Your task to perform on an android device: open app "Booking.com: Hotels and more" (install if not already installed) and enter user name: "misting@outlook.com" and password: "blandly" Image 0: 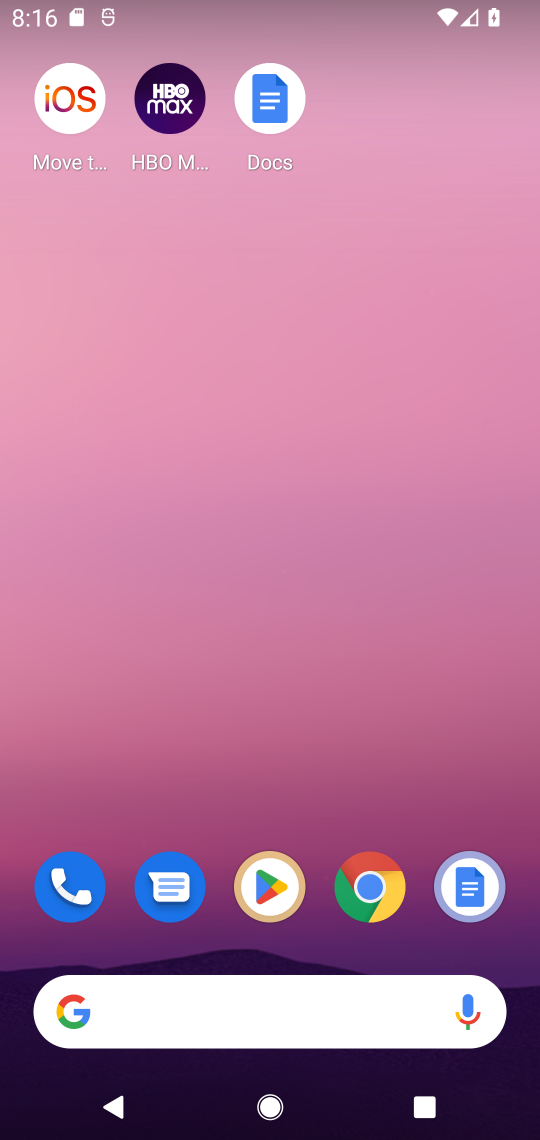
Step 0: click (287, 921)
Your task to perform on an android device: open app "Booking.com: Hotels and more" (install if not already installed) and enter user name: "misting@outlook.com" and password: "blandly" Image 1: 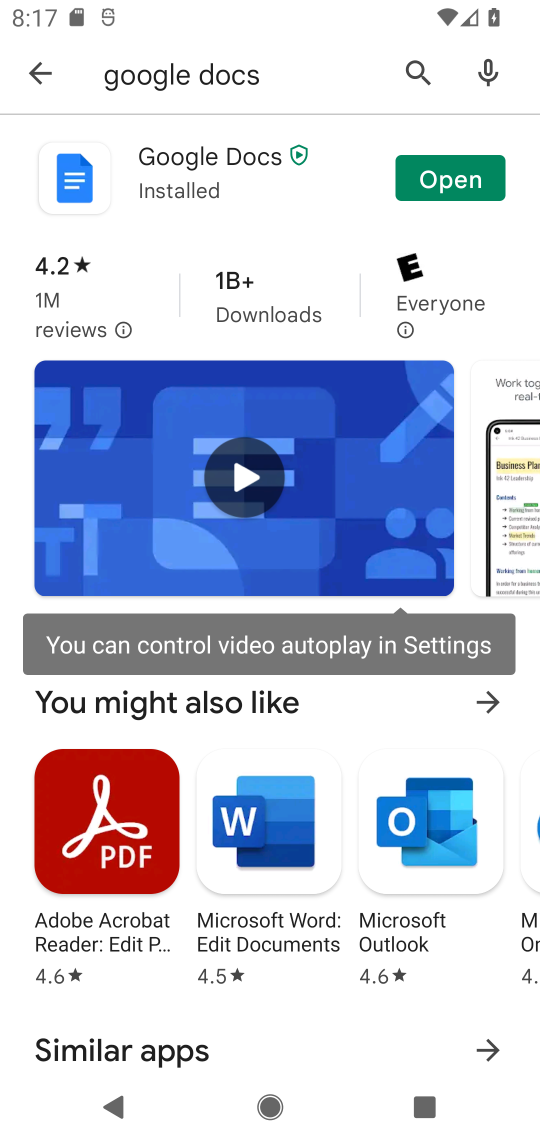
Step 1: click (425, 71)
Your task to perform on an android device: open app "Booking.com: Hotels and more" (install if not already installed) and enter user name: "misting@outlook.com" and password: "blandly" Image 2: 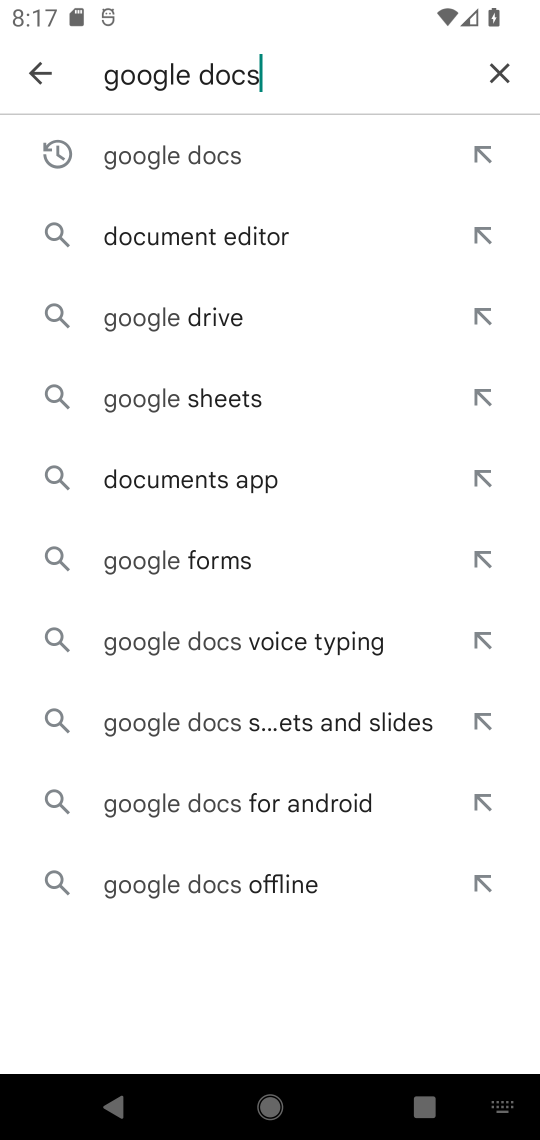
Step 2: click (490, 82)
Your task to perform on an android device: open app "Booking.com: Hotels and more" (install if not already installed) and enter user name: "misting@outlook.com" and password: "blandly" Image 3: 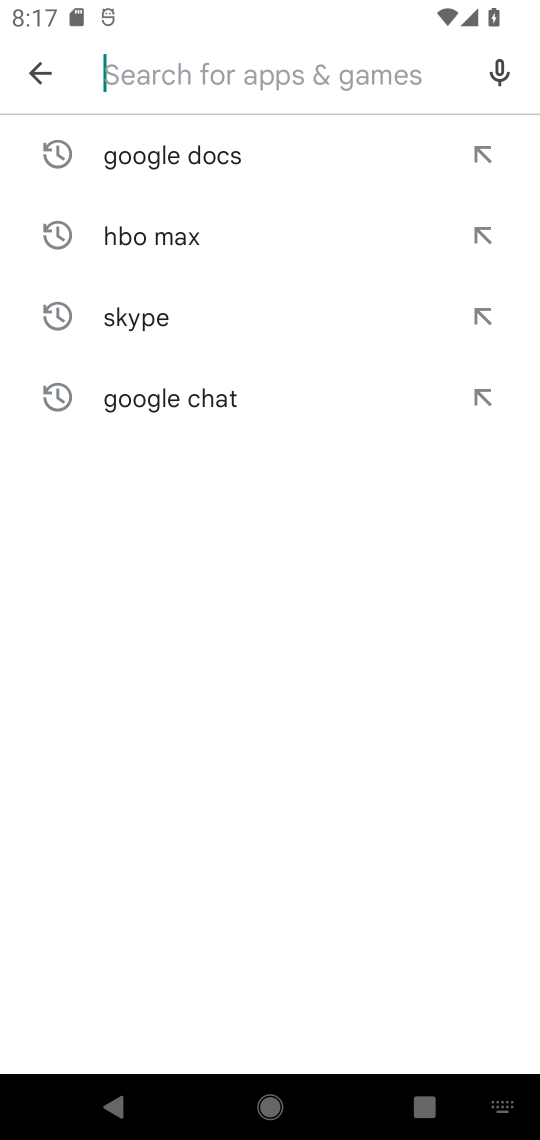
Step 3: type "booking"
Your task to perform on an android device: open app "Booking.com: Hotels and more" (install if not already installed) and enter user name: "misting@outlook.com" and password: "blandly" Image 4: 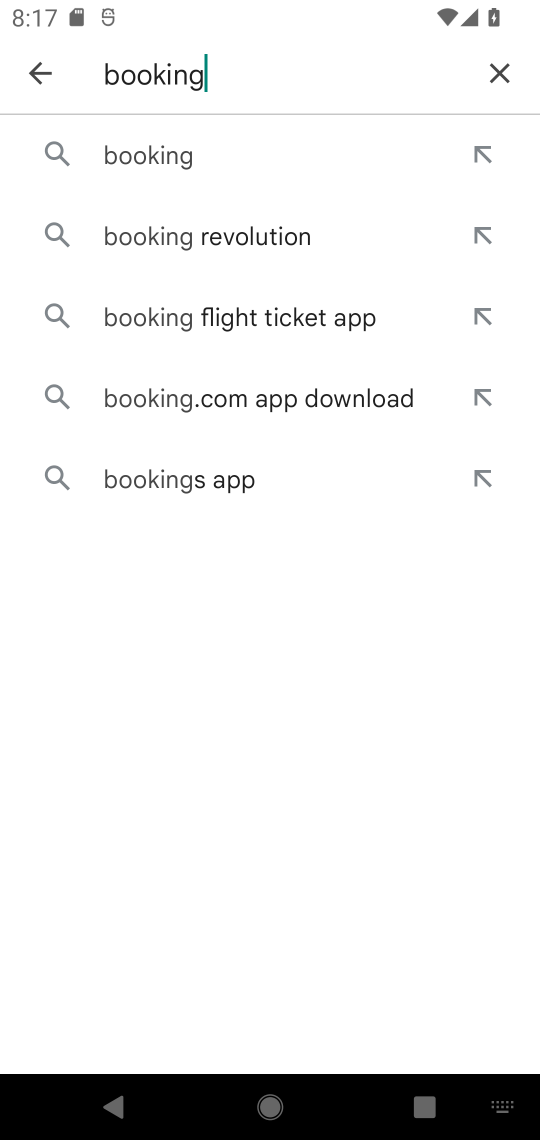
Step 4: click (143, 163)
Your task to perform on an android device: open app "Booking.com: Hotels and more" (install if not already installed) and enter user name: "misting@outlook.com" and password: "blandly" Image 5: 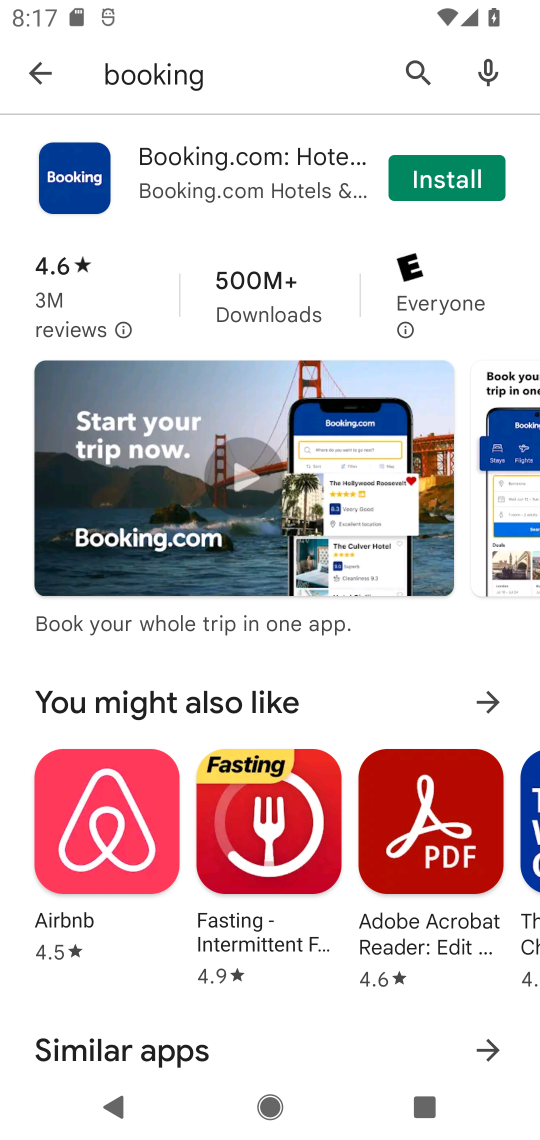
Step 5: click (422, 163)
Your task to perform on an android device: open app "Booking.com: Hotels and more" (install if not already installed) and enter user name: "misting@outlook.com" and password: "blandly" Image 6: 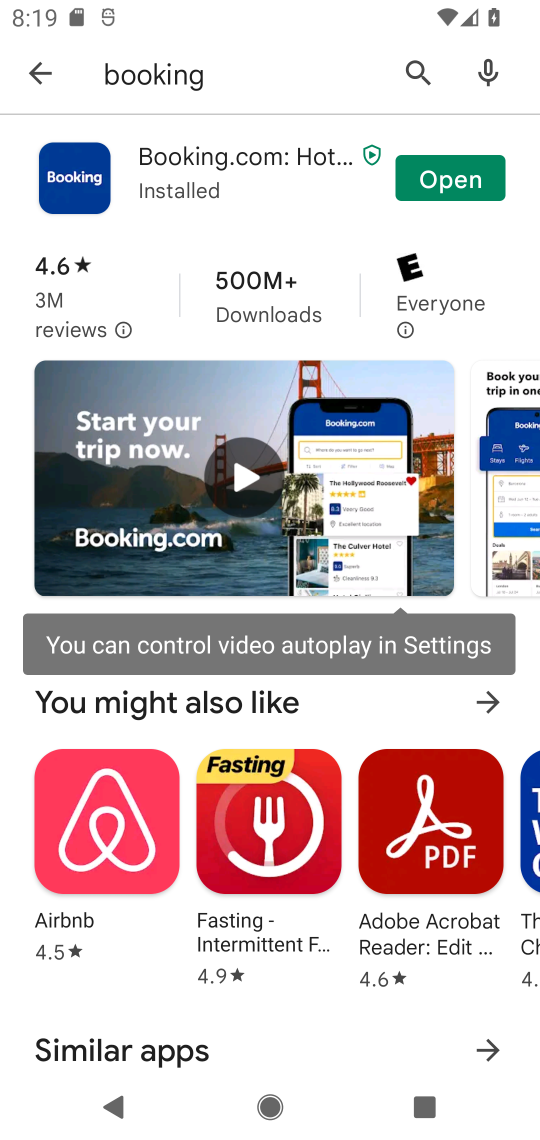
Step 6: click (499, 206)
Your task to perform on an android device: open app "Booking.com: Hotels and more" (install if not already installed) and enter user name: "misting@outlook.com" and password: "blandly" Image 7: 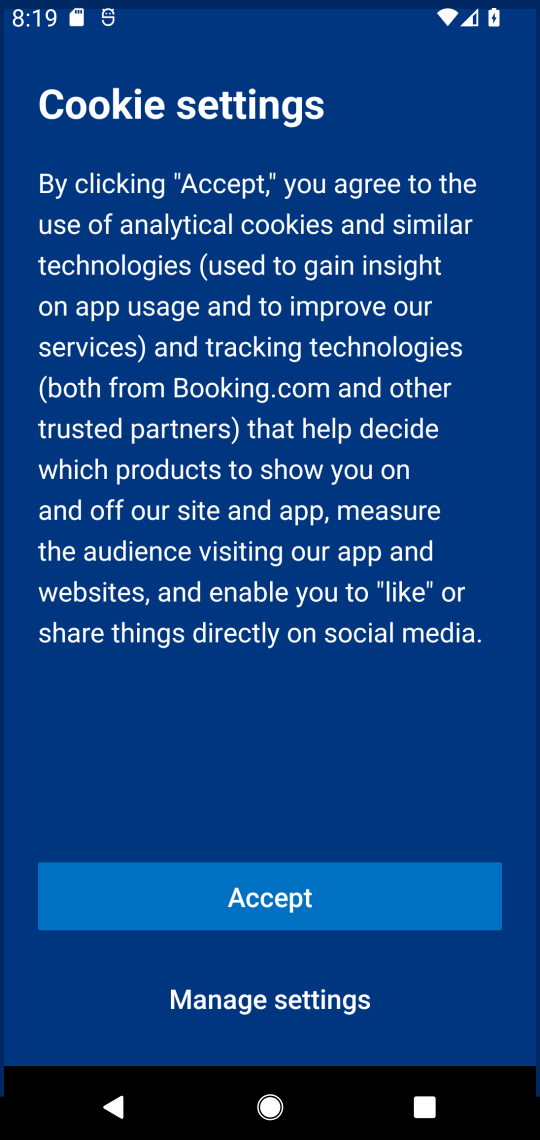
Step 7: task complete